Your task to perform on an android device: choose inbox layout in the gmail app Image 0: 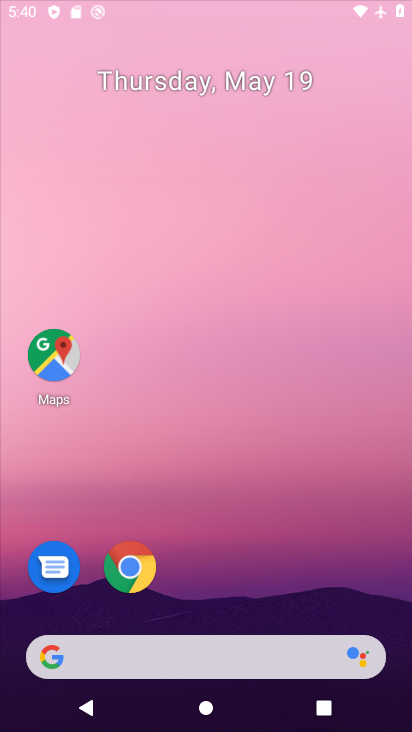
Step 0: click (27, 54)
Your task to perform on an android device: choose inbox layout in the gmail app Image 1: 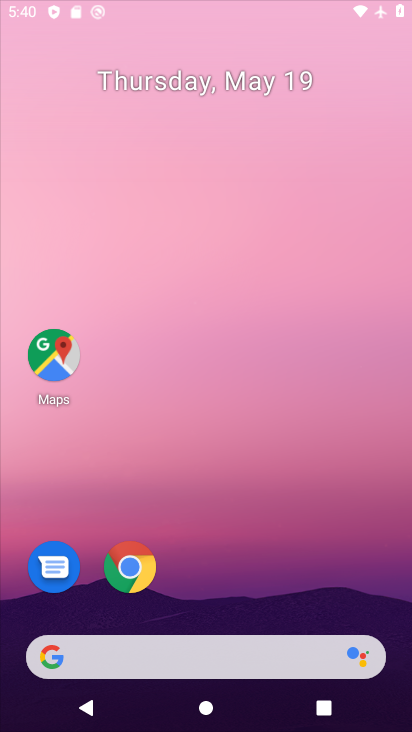
Step 1: drag from (274, 667) to (114, 127)
Your task to perform on an android device: choose inbox layout in the gmail app Image 2: 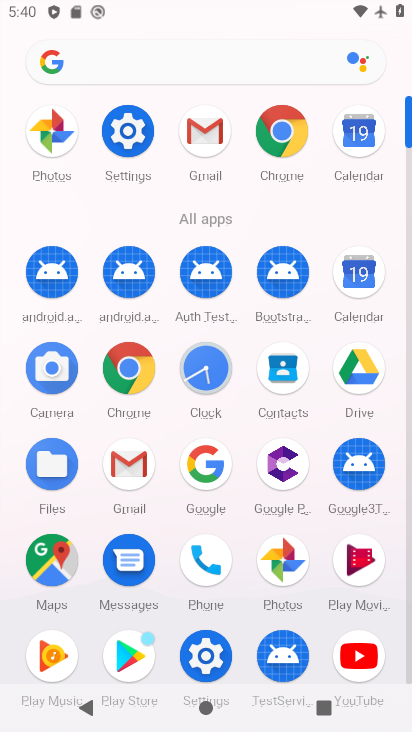
Step 2: click (138, 479)
Your task to perform on an android device: choose inbox layout in the gmail app Image 3: 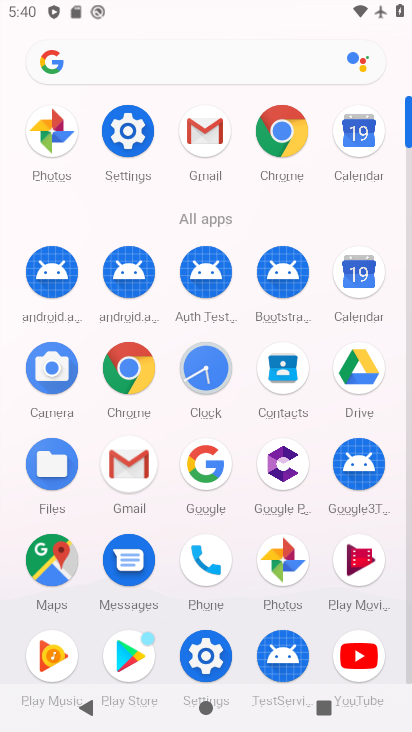
Step 3: click (137, 478)
Your task to perform on an android device: choose inbox layout in the gmail app Image 4: 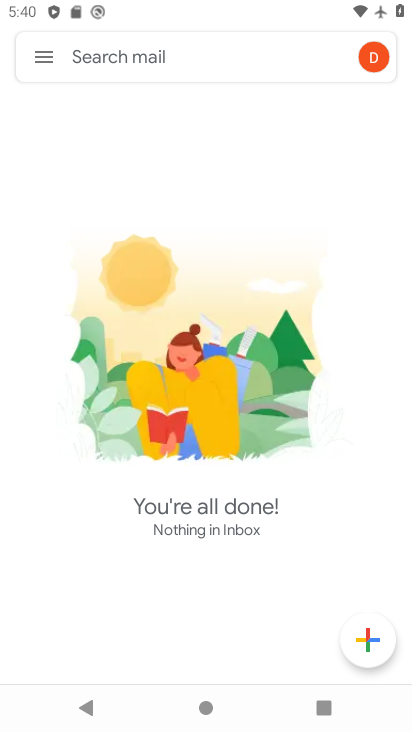
Step 4: click (26, 51)
Your task to perform on an android device: choose inbox layout in the gmail app Image 5: 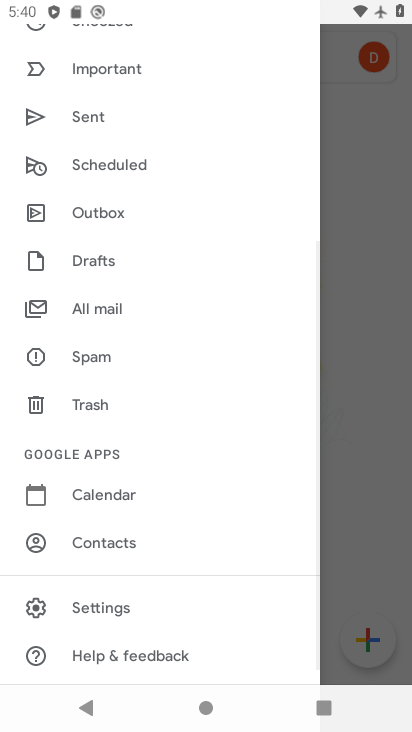
Step 5: drag from (102, 581) to (117, 112)
Your task to perform on an android device: choose inbox layout in the gmail app Image 6: 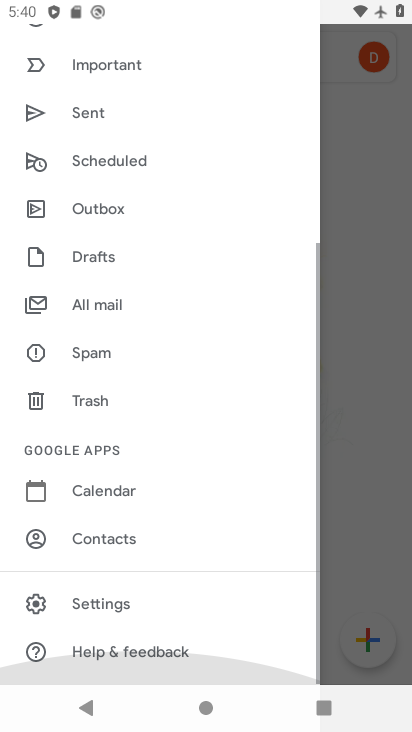
Step 6: drag from (128, 399) to (102, 129)
Your task to perform on an android device: choose inbox layout in the gmail app Image 7: 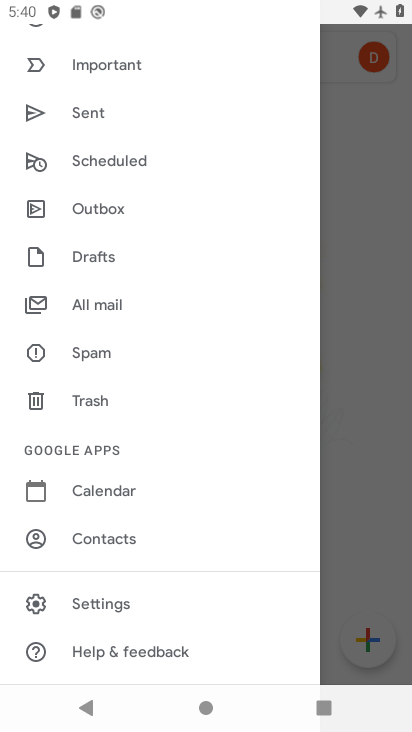
Step 7: click (96, 609)
Your task to perform on an android device: choose inbox layout in the gmail app Image 8: 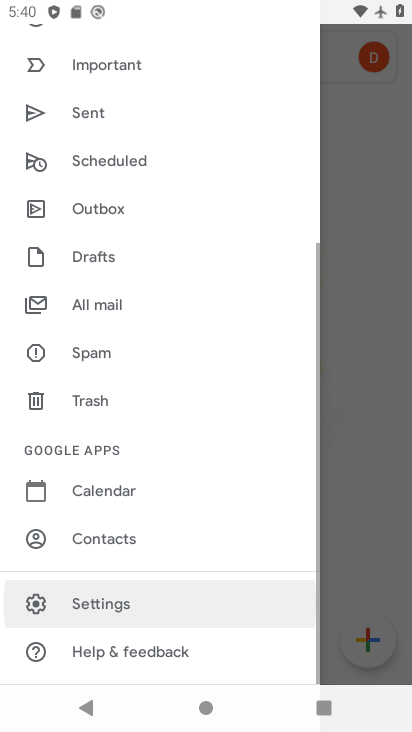
Step 8: click (95, 608)
Your task to perform on an android device: choose inbox layout in the gmail app Image 9: 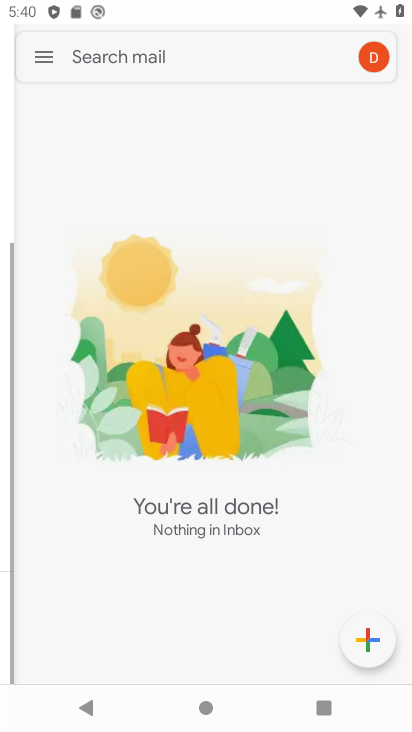
Step 9: click (95, 608)
Your task to perform on an android device: choose inbox layout in the gmail app Image 10: 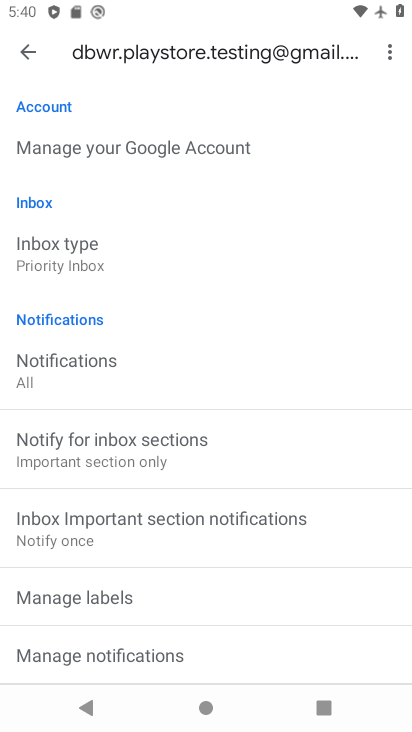
Step 10: click (24, 59)
Your task to perform on an android device: choose inbox layout in the gmail app Image 11: 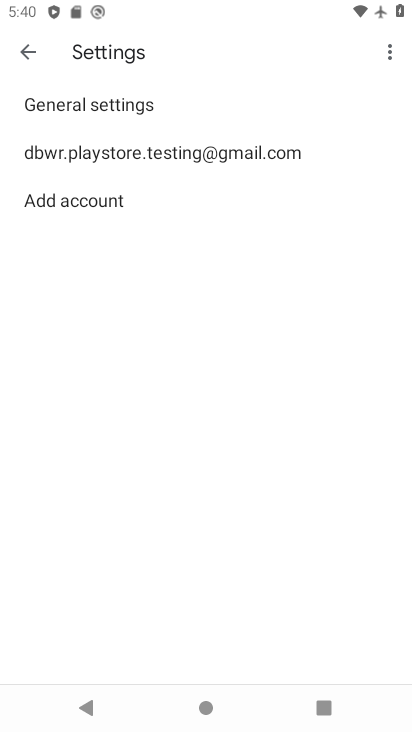
Step 11: task complete